Your task to perform on an android device: Google the capital of Venezuela Image 0: 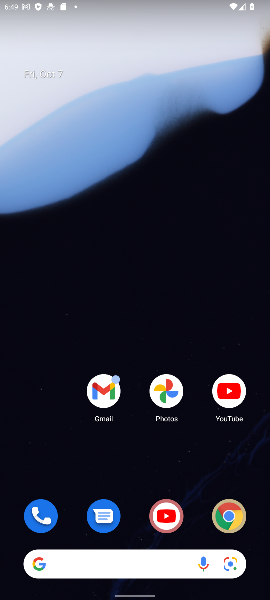
Step 0: click (155, 573)
Your task to perform on an android device: Google the capital of Venezuela Image 1: 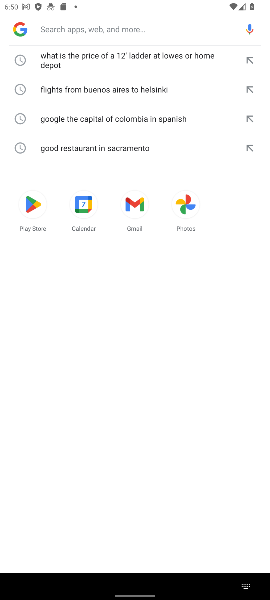
Step 1: type "Google the capital of Venezuela"
Your task to perform on an android device: Google the capital of Venezuela Image 2: 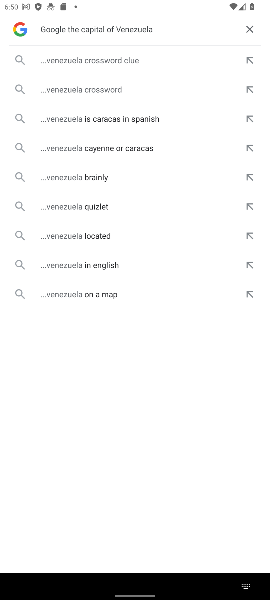
Step 2: click (110, 66)
Your task to perform on an android device: Google the capital of Venezuela Image 3: 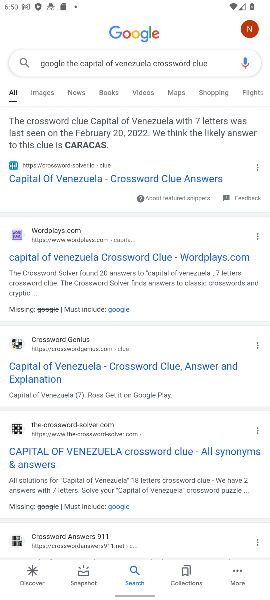
Step 3: click (131, 257)
Your task to perform on an android device: Google the capital of Venezuela Image 4: 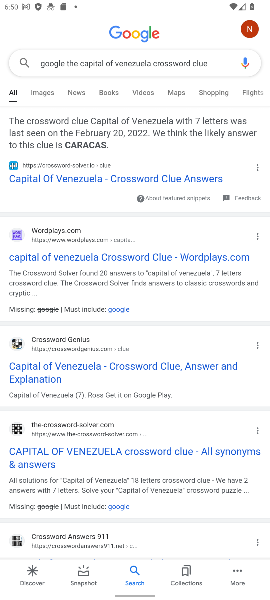
Step 4: task complete